Your task to perform on an android device: Open the phone app and click the voicemail tab. Image 0: 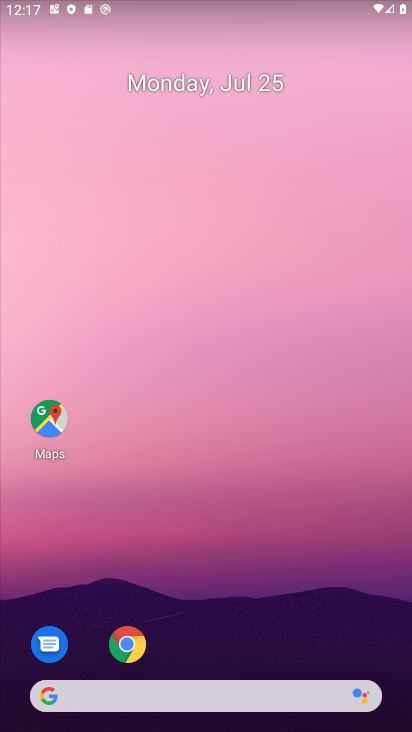
Step 0: drag from (343, 627) to (148, 0)
Your task to perform on an android device: Open the phone app and click the voicemail tab. Image 1: 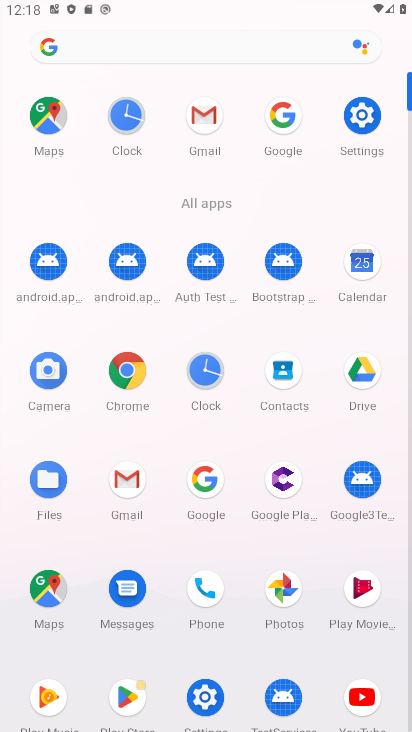
Step 1: click (198, 594)
Your task to perform on an android device: Open the phone app and click the voicemail tab. Image 2: 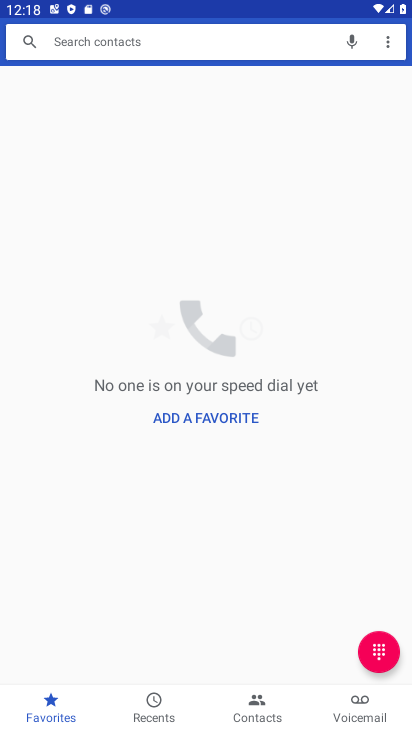
Step 2: click (347, 709)
Your task to perform on an android device: Open the phone app and click the voicemail tab. Image 3: 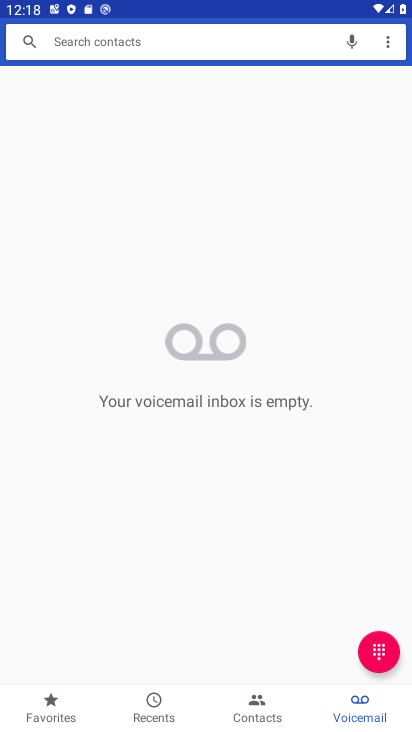
Step 3: task complete